Your task to perform on an android device: Turn on the flashlight Image 0: 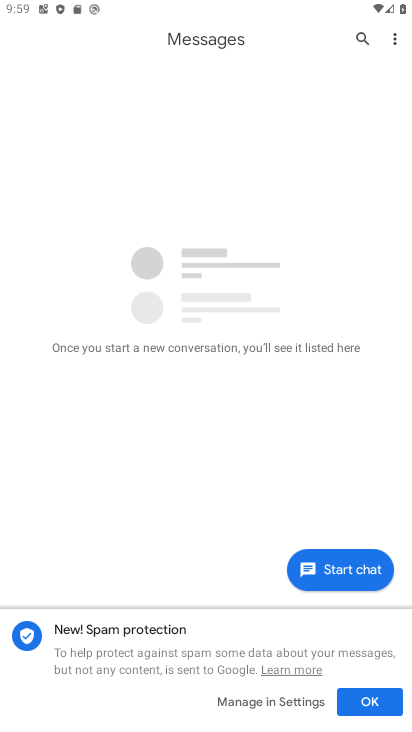
Step 0: press back button
Your task to perform on an android device: Turn on the flashlight Image 1: 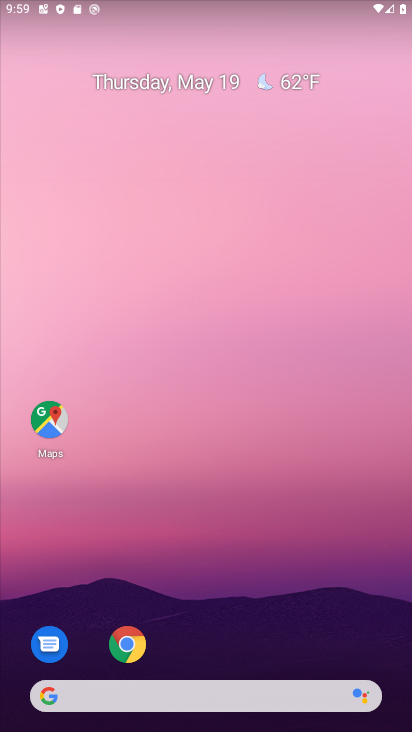
Step 1: task complete